Your task to perform on an android device: turn on notifications settings in the gmail app Image 0: 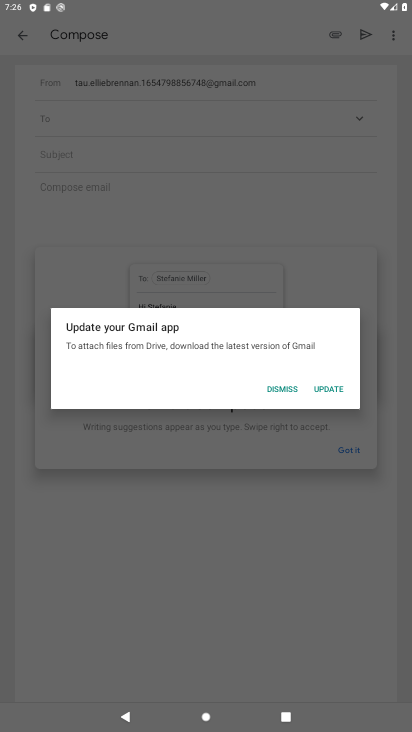
Step 0: press home button
Your task to perform on an android device: turn on notifications settings in the gmail app Image 1: 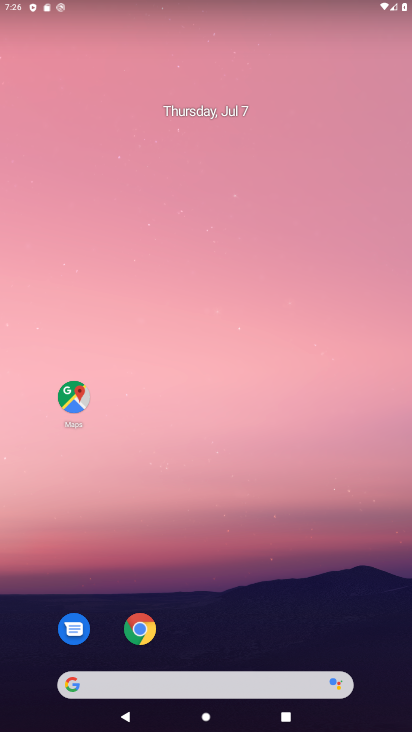
Step 1: drag from (337, 622) to (372, 104)
Your task to perform on an android device: turn on notifications settings in the gmail app Image 2: 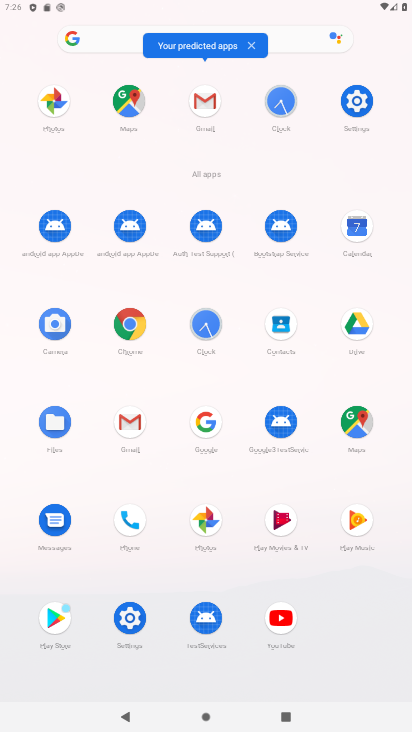
Step 2: click (132, 419)
Your task to perform on an android device: turn on notifications settings in the gmail app Image 3: 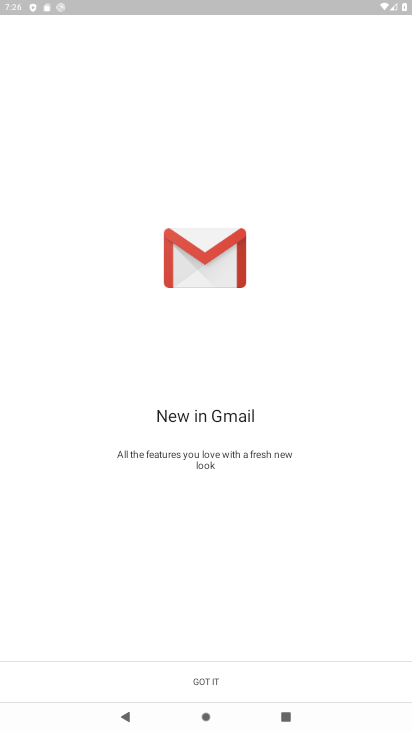
Step 3: click (205, 677)
Your task to perform on an android device: turn on notifications settings in the gmail app Image 4: 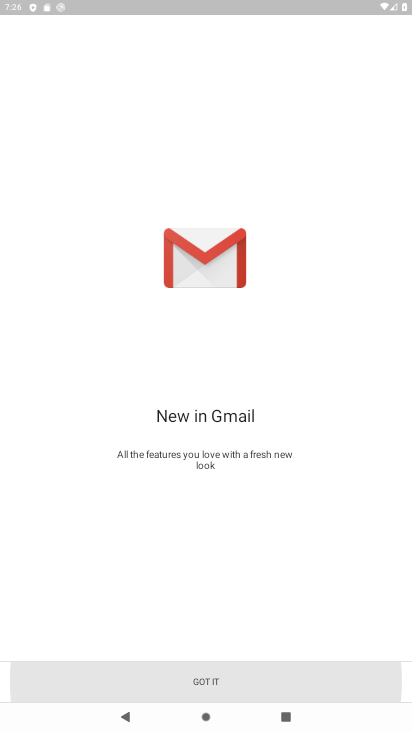
Step 4: click (205, 677)
Your task to perform on an android device: turn on notifications settings in the gmail app Image 5: 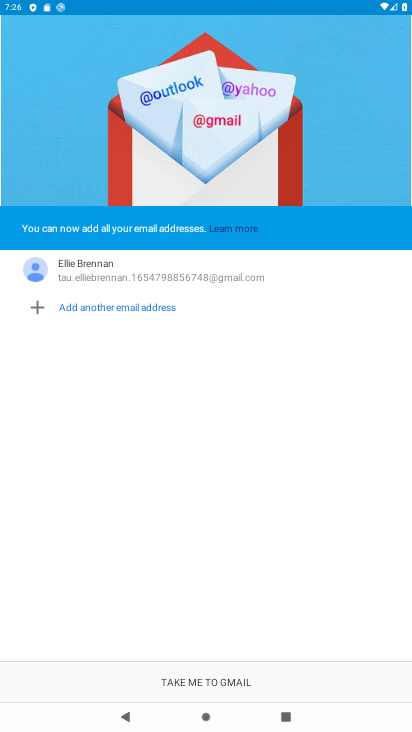
Step 5: click (205, 677)
Your task to perform on an android device: turn on notifications settings in the gmail app Image 6: 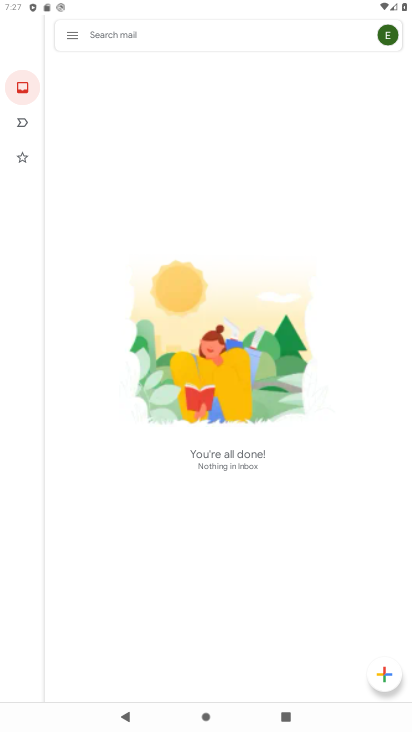
Step 6: click (73, 32)
Your task to perform on an android device: turn on notifications settings in the gmail app Image 7: 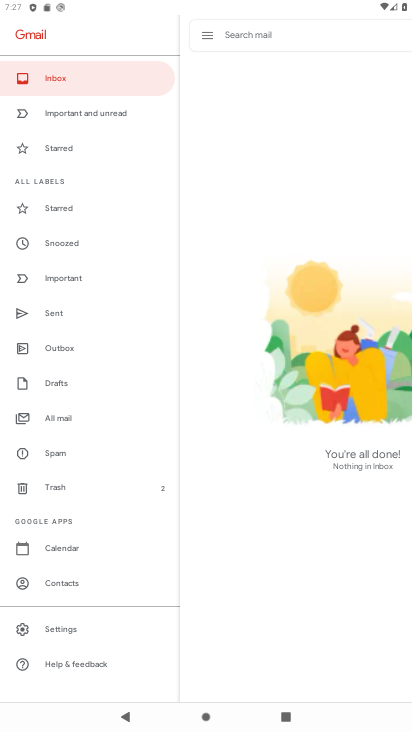
Step 7: click (122, 627)
Your task to perform on an android device: turn on notifications settings in the gmail app Image 8: 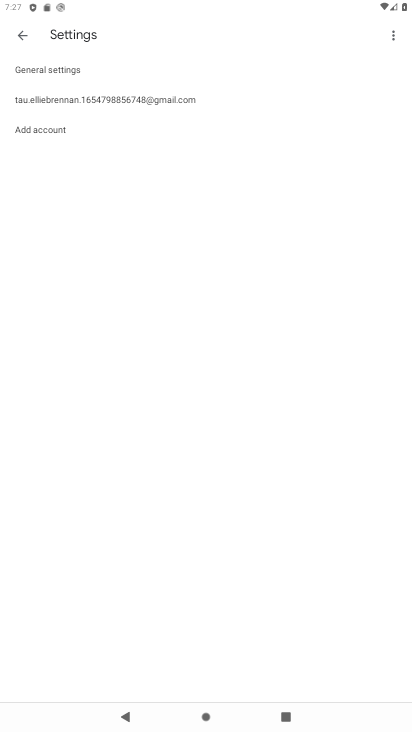
Step 8: click (179, 95)
Your task to perform on an android device: turn on notifications settings in the gmail app Image 9: 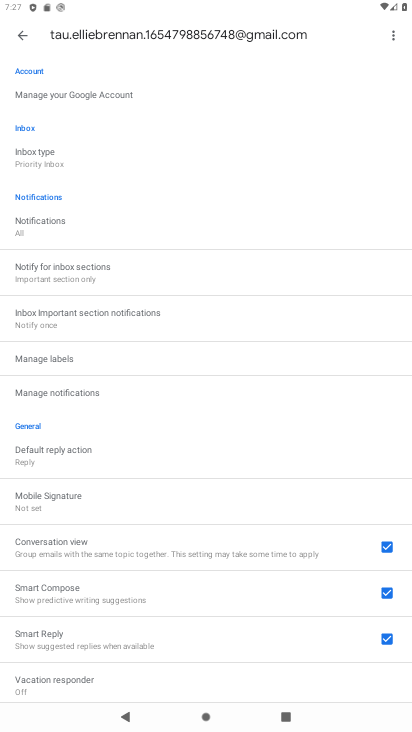
Step 9: click (252, 401)
Your task to perform on an android device: turn on notifications settings in the gmail app Image 10: 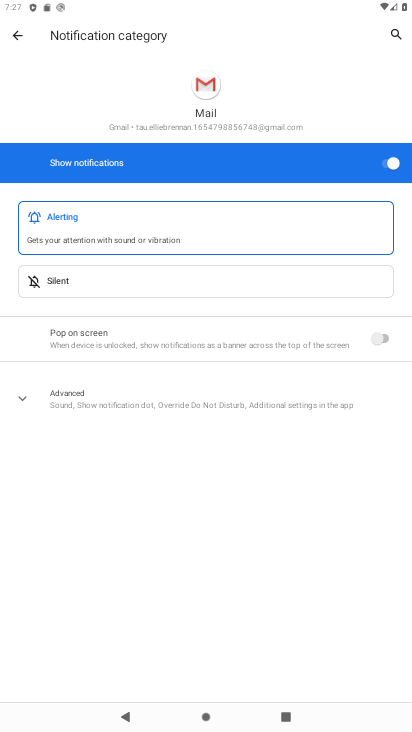
Step 10: task complete